Your task to perform on an android device: Go to Yahoo.com Image 0: 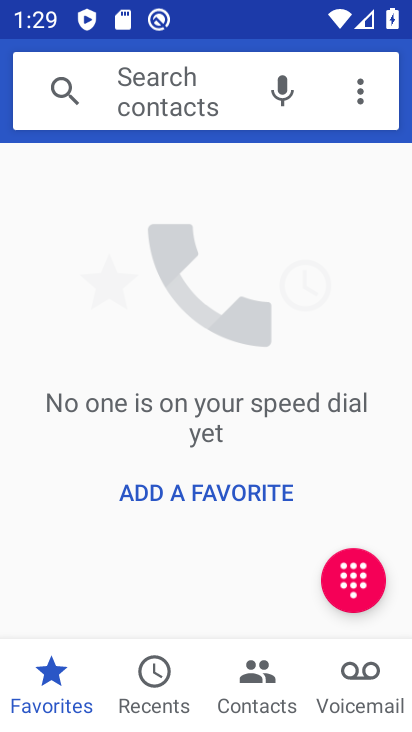
Step 0: press home button
Your task to perform on an android device: Go to Yahoo.com Image 1: 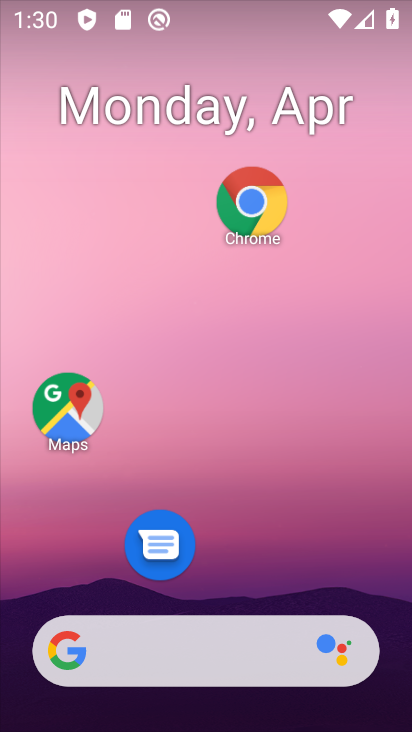
Step 1: click (253, 199)
Your task to perform on an android device: Go to Yahoo.com Image 2: 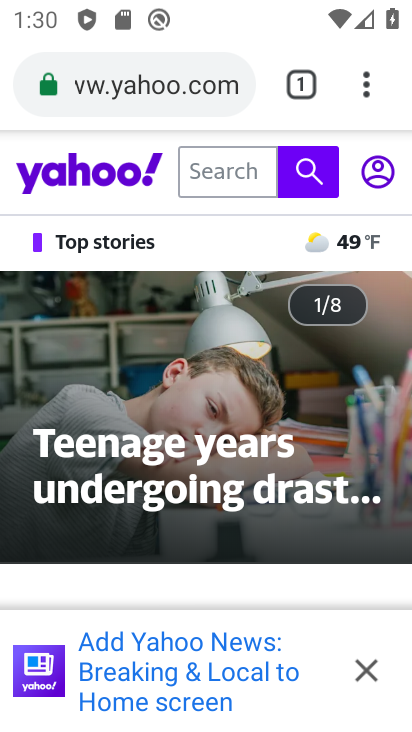
Step 2: click (253, 199)
Your task to perform on an android device: Go to Yahoo.com Image 3: 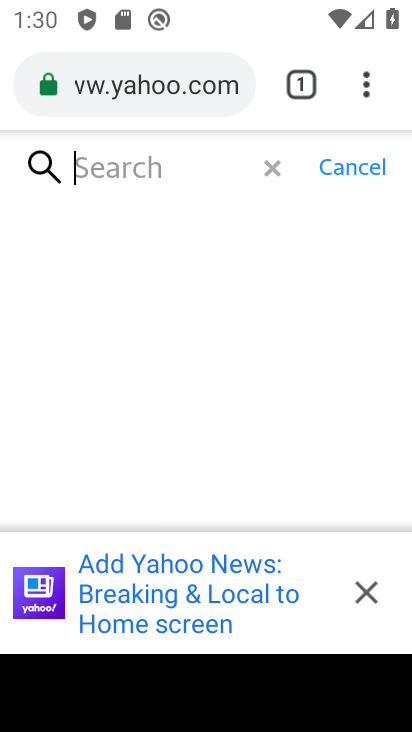
Step 3: task complete